Your task to perform on an android device: delete the emails in spam in the gmail app Image 0: 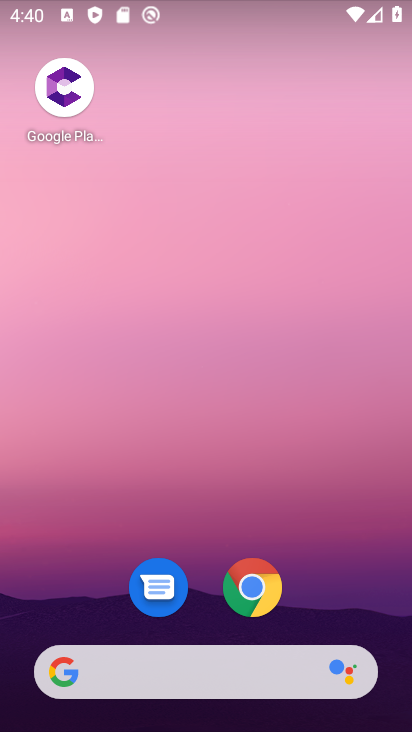
Step 0: drag from (273, 521) to (186, 49)
Your task to perform on an android device: delete the emails in spam in the gmail app Image 1: 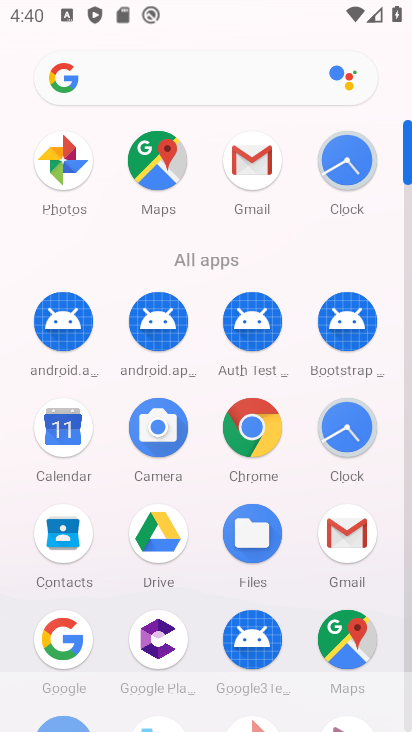
Step 1: click (250, 179)
Your task to perform on an android device: delete the emails in spam in the gmail app Image 2: 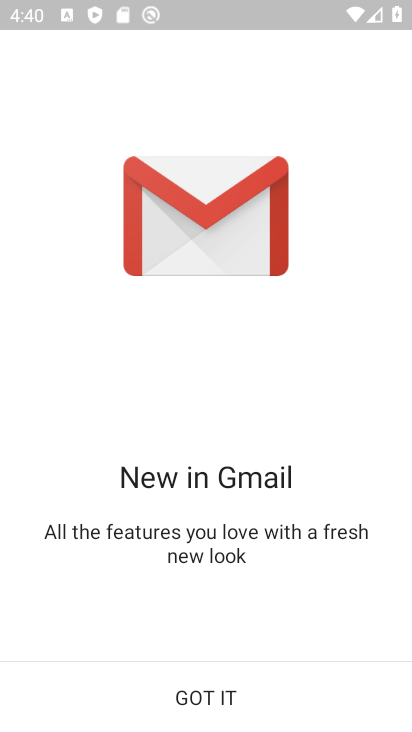
Step 2: click (215, 681)
Your task to perform on an android device: delete the emails in spam in the gmail app Image 3: 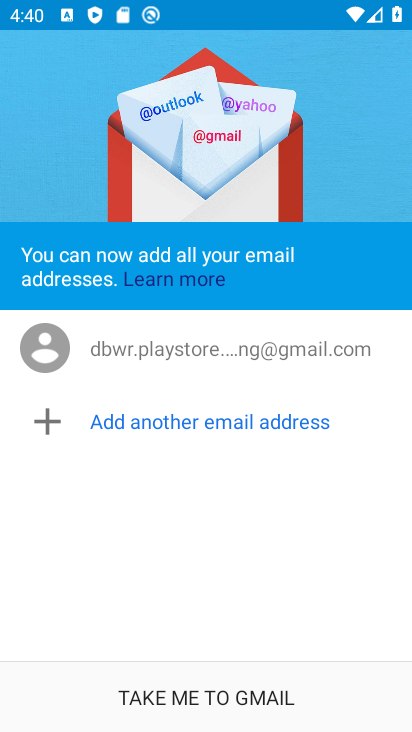
Step 3: task complete